Your task to perform on an android device: Check the weather Image 0: 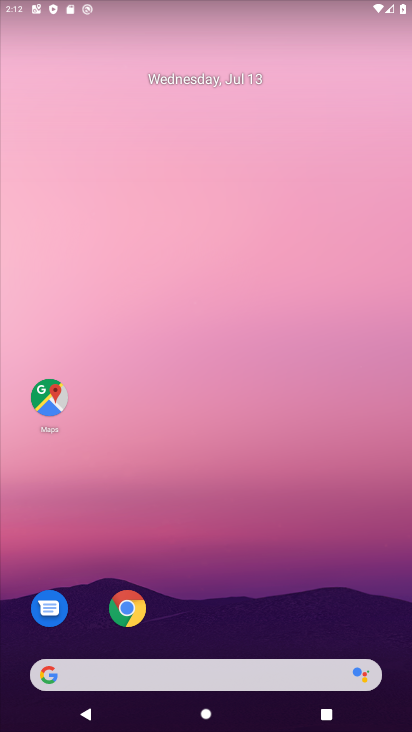
Step 0: click (185, 689)
Your task to perform on an android device: Check the weather Image 1: 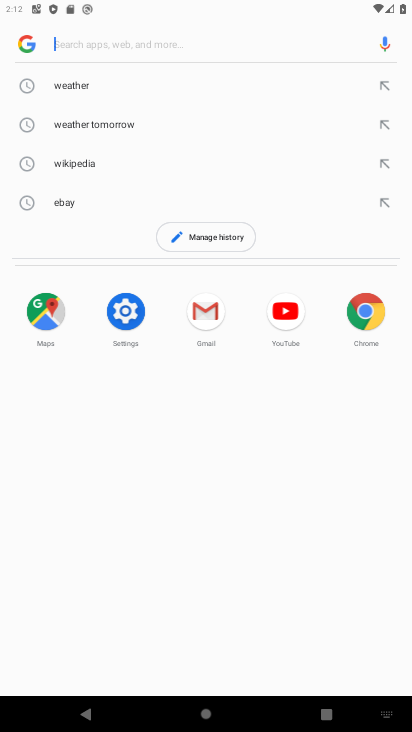
Step 1: click (68, 95)
Your task to perform on an android device: Check the weather Image 2: 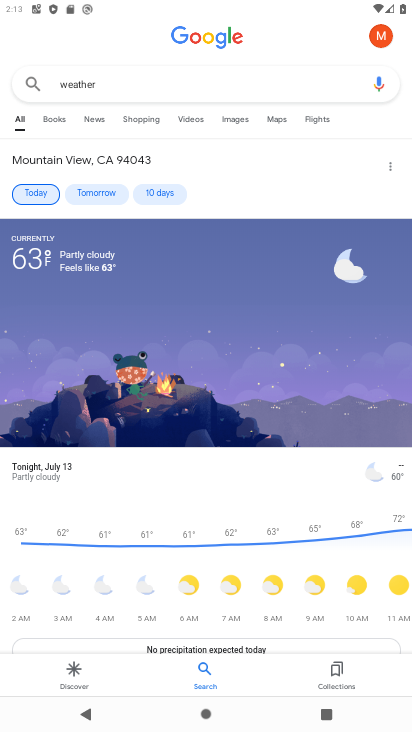
Step 2: task complete